Your task to perform on an android device: check out phone information Image 0: 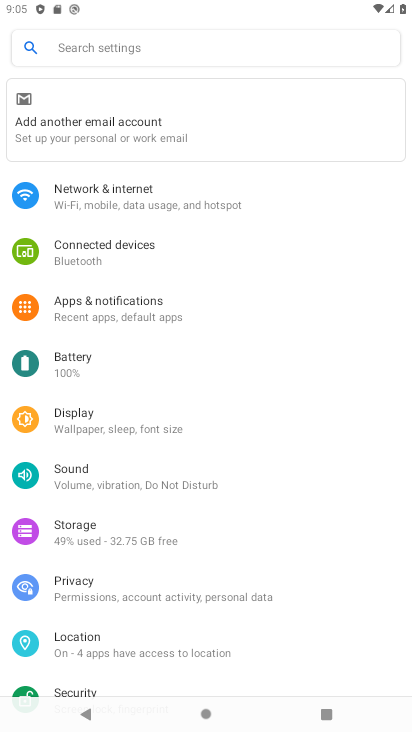
Step 0: drag from (149, 653) to (349, 0)
Your task to perform on an android device: check out phone information Image 1: 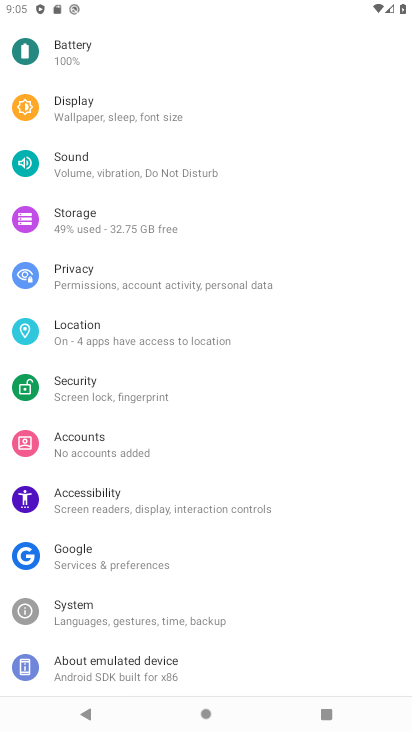
Step 1: drag from (189, 583) to (304, 71)
Your task to perform on an android device: check out phone information Image 2: 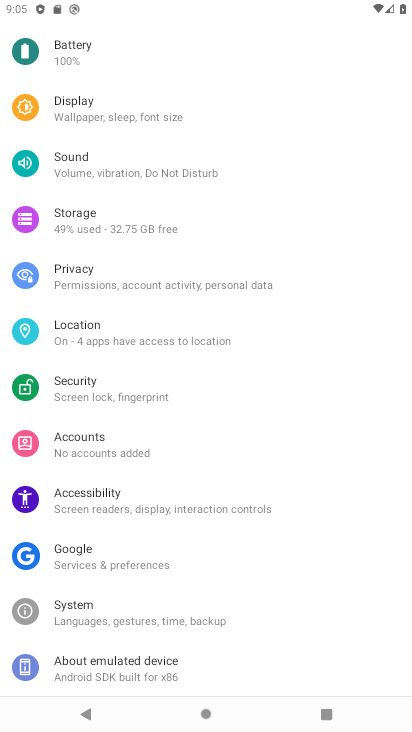
Step 2: click (177, 675)
Your task to perform on an android device: check out phone information Image 3: 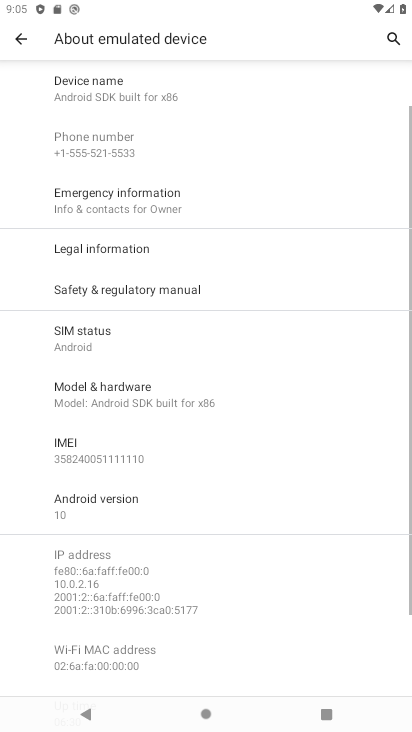
Step 3: task complete